Your task to perform on an android device: Open Google Maps Image 0: 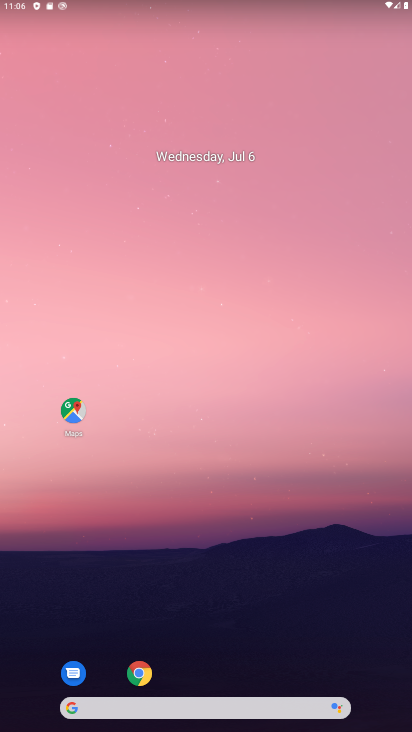
Step 0: click (68, 411)
Your task to perform on an android device: Open Google Maps Image 1: 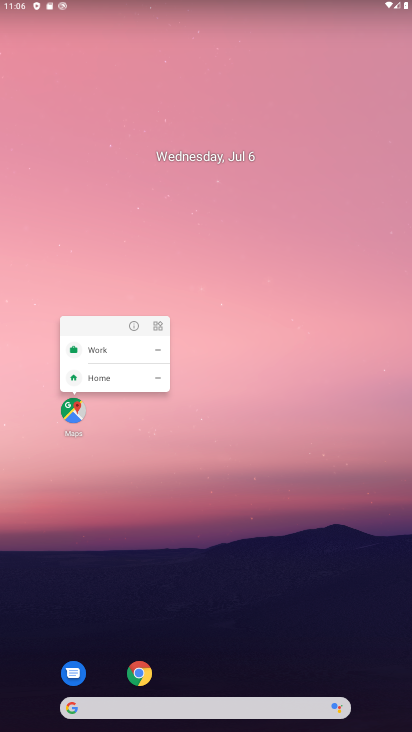
Step 1: click (69, 411)
Your task to perform on an android device: Open Google Maps Image 2: 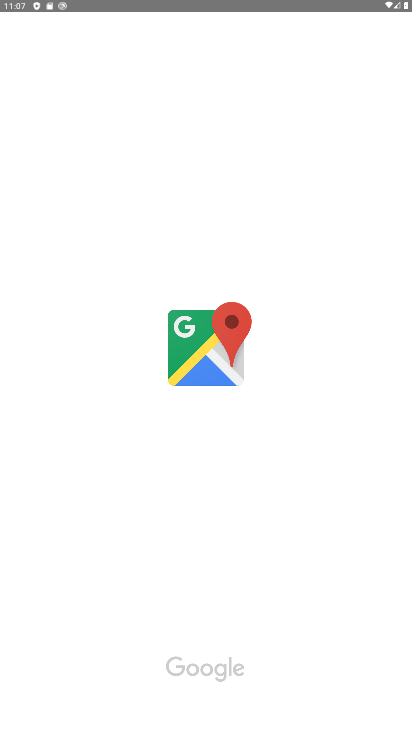
Step 2: task complete